Your task to perform on an android device: Open display settings Image 0: 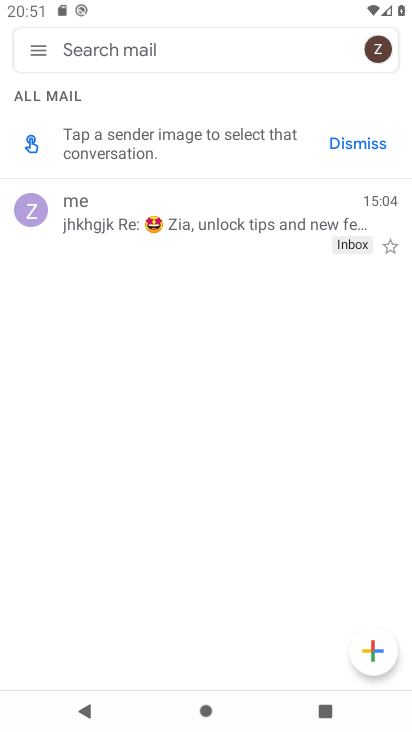
Step 0: press home button
Your task to perform on an android device: Open display settings Image 1: 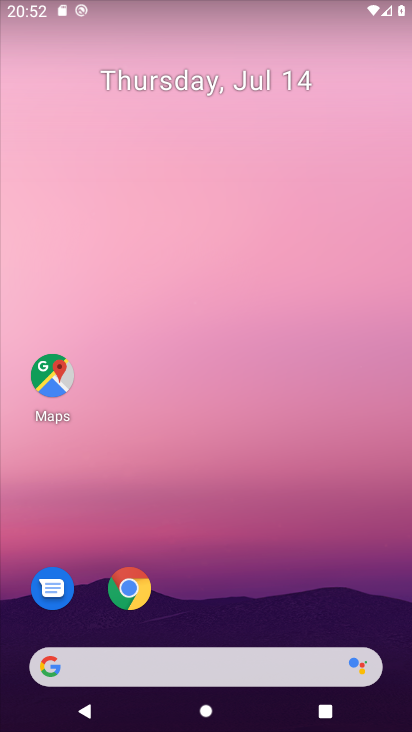
Step 1: drag from (348, 612) to (349, 67)
Your task to perform on an android device: Open display settings Image 2: 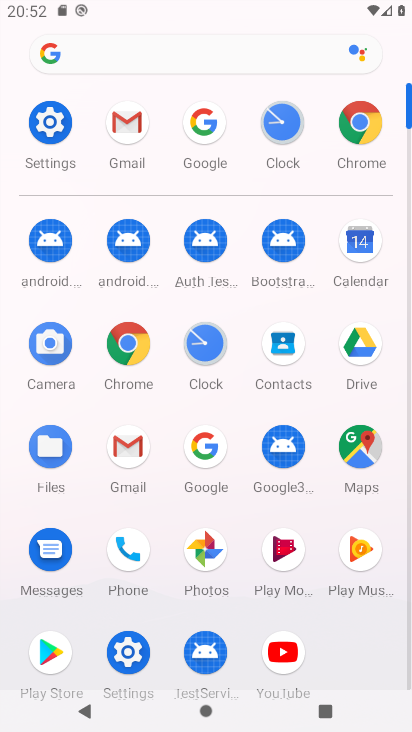
Step 2: click (51, 122)
Your task to perform on an android device: Open display settings Image 3: 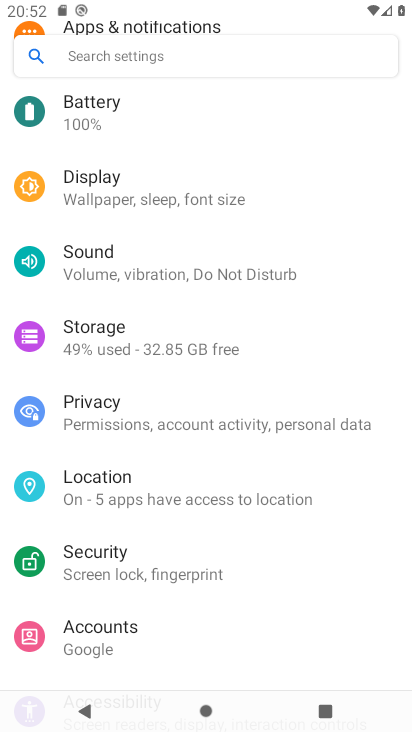
Step 3: drag from (329, 195) to (333, 296)
Your task to perform on an android device: Open display settings Image 4: 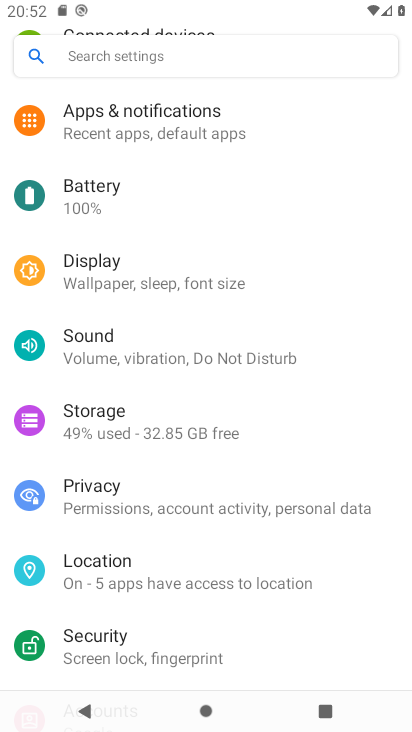
Step 4: drag from (356, 184) to (355, 299)
Your task to perform on an android device: Open display settings Image 5: 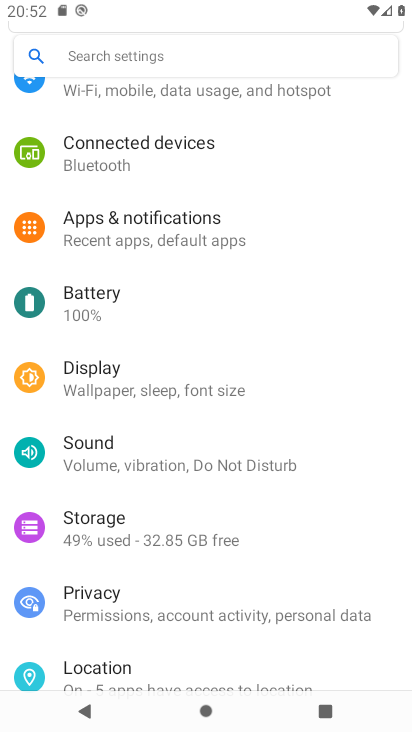
Step 5: drag from (346, 251) to (348, 333)
Your task to perform on an android device: Open display settings Image 6: 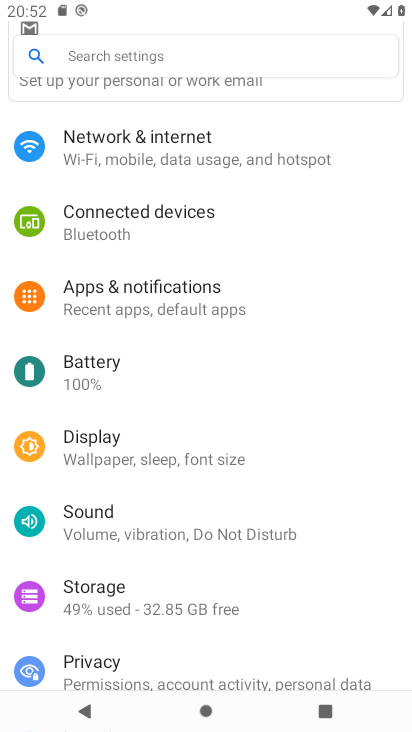
Step 6: drag from (345, 373) to (345, 283)
Your task to perform on an android device: Open display settings Image 7: 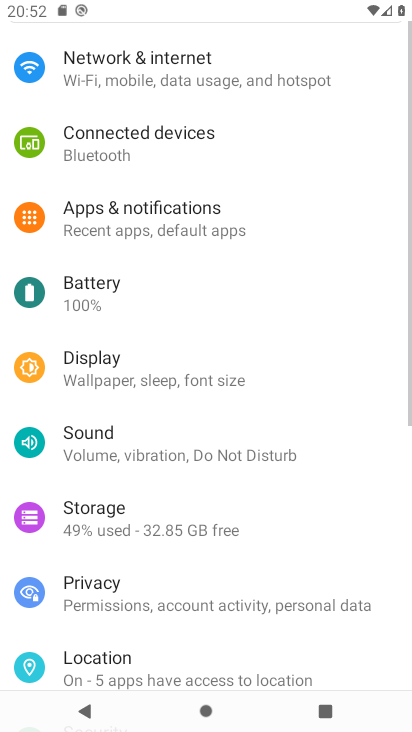
Step 7: drag from (342, 362) to (344, 258)
Your task to perform on an android device: Open display settings Image 8: 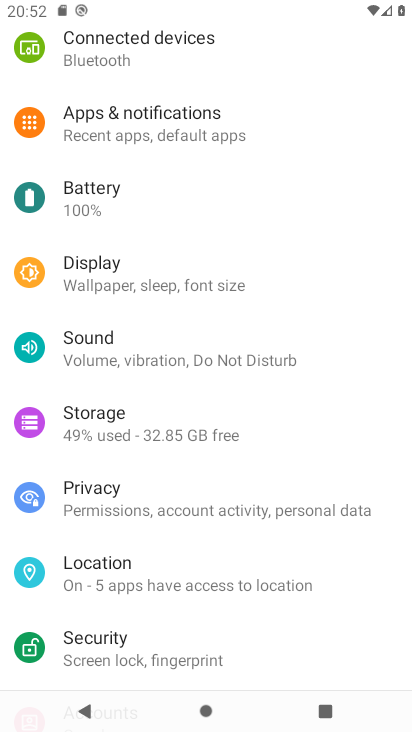
Step 8: drag from (351, 368) to (353, 244)
Your task to perform on an android device: Open display settings Image 9: 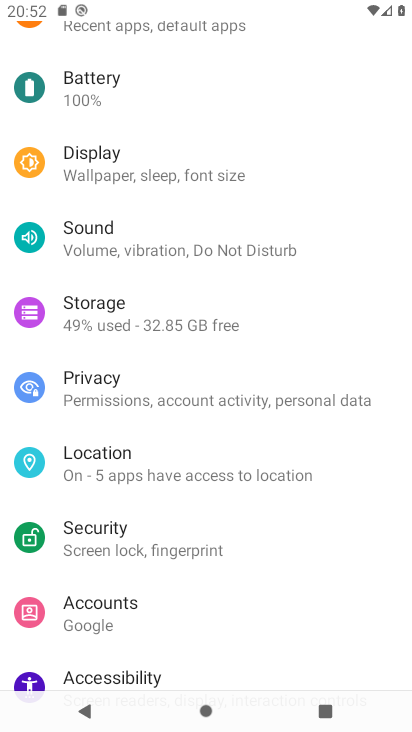
Step 9: click (265, 185)
Your task to perform on an android device: Open display settings Image 10: 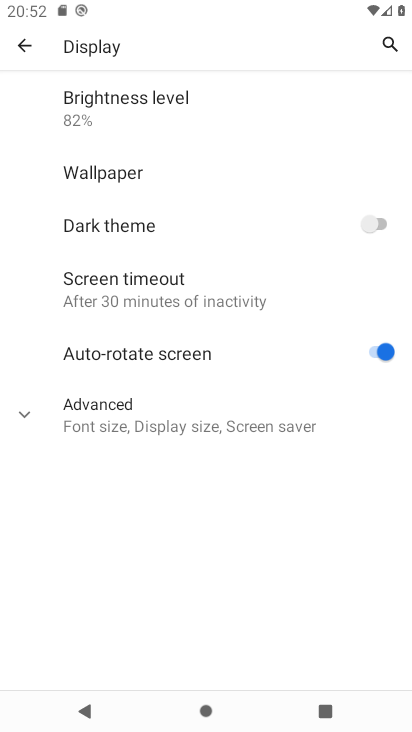
Step 10: click (275, 410)
Your task to perform on an android device: Open display settings Image 11: 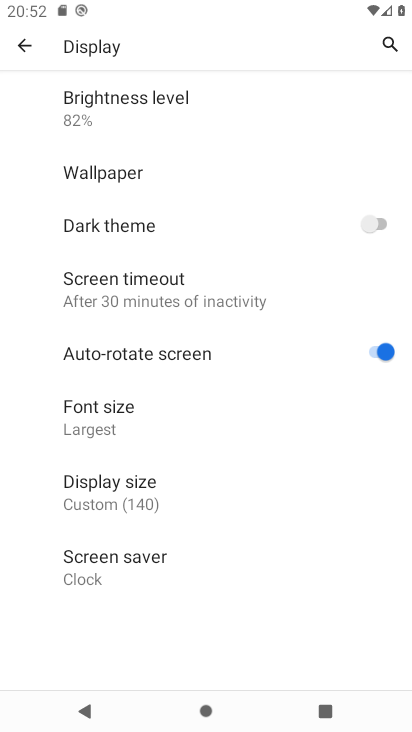
Step 11: task complete